Your task to perform on an android device: change notifications settings Image 0: 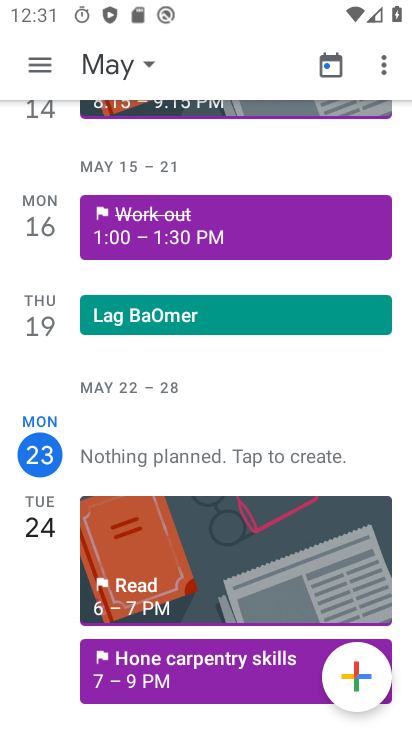
Step 0: press back button
Your task to perform on an android device: change notifications settings Image 1: 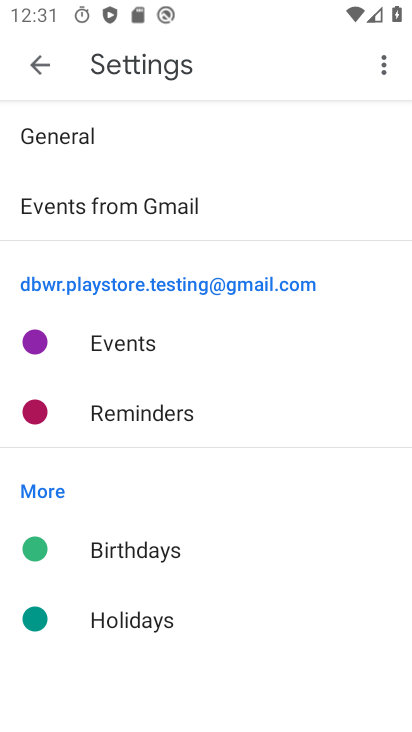
Step 1: press back button
Your task to perform on an android device: change notifications settings Image 2: 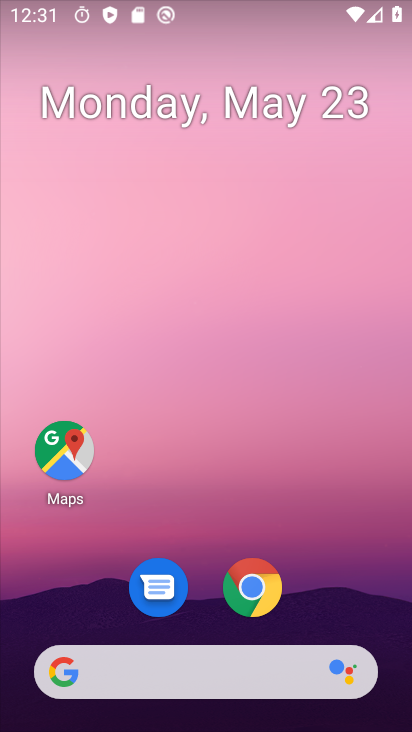
Step 2: drag from (216, 359) to (236, 229)
Your task to perform on an android device: change notifications settings Image 3: 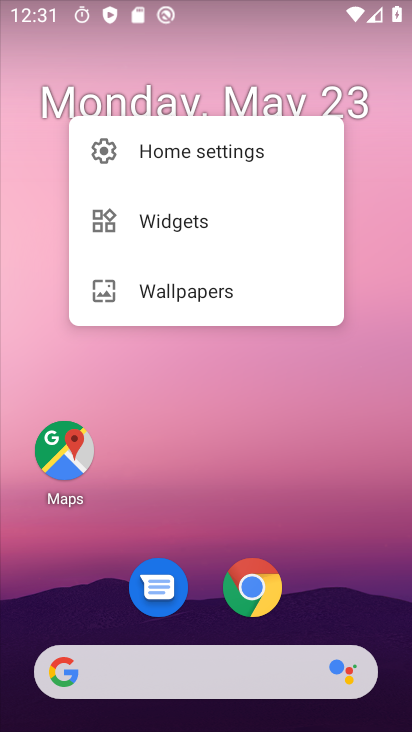
Step 3: click (259, 473)
Your task to perform on an android device: change notifications settings Image 4: 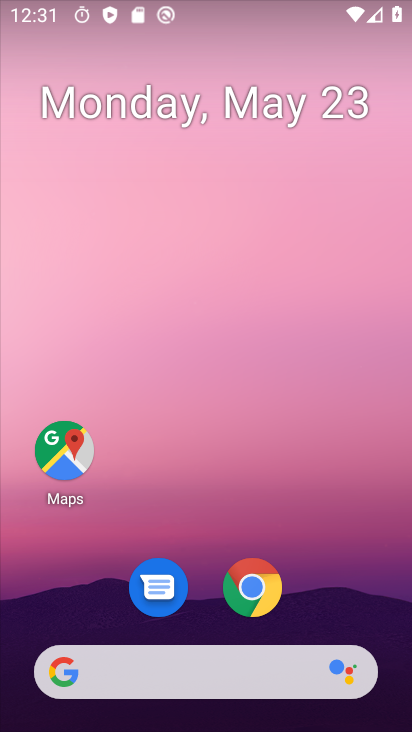
Step 4: drag from (201, 529) to (316, 3)
Your task to perform on an android device: change notifications settings Image 5: 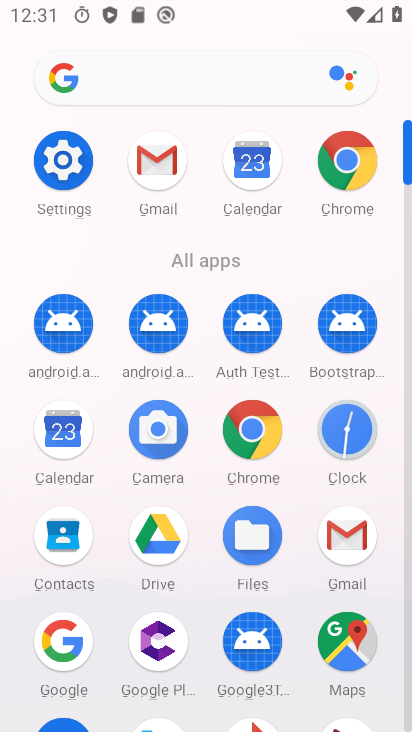
Step 5: click (58, 171)
Your task to perform on an android device: change notifications settings Image 6: 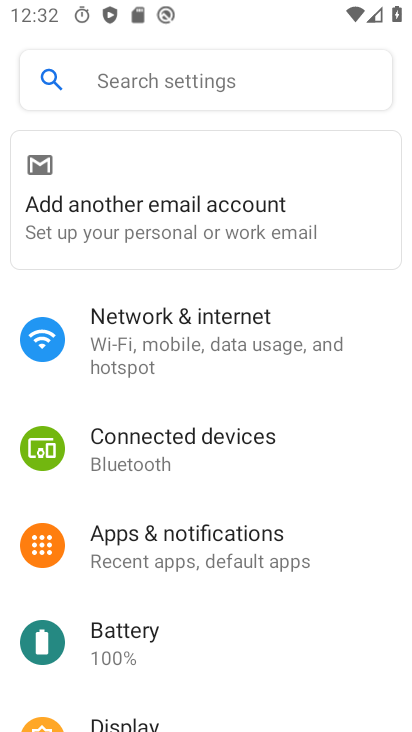
Step 6: click (248, 546)
Your task to perform on an android device: change notifications settings Image 7: 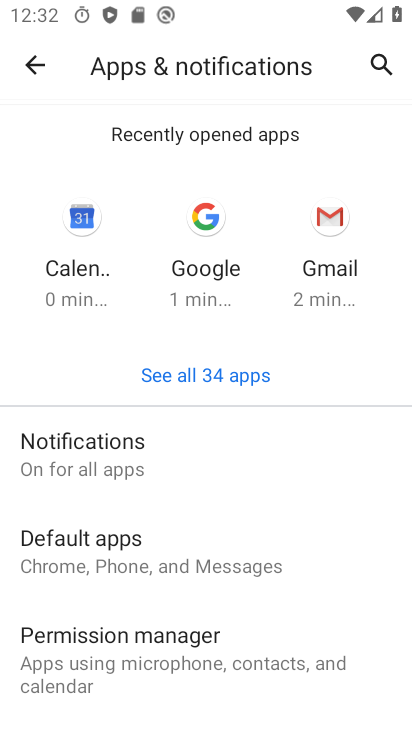
Step 7: click (133, 459)
Your task to perform on an android device: change notifications settings Image 8: 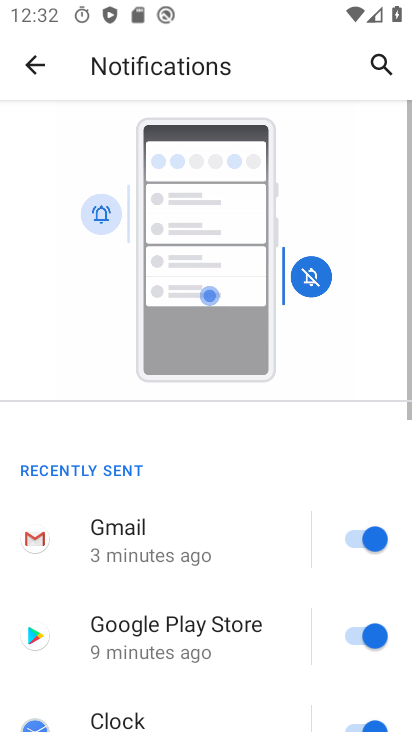
Step 8: drag from (179, 587) to (251, 40)
Your task to perform on an android device: change notifications settings Image 9: 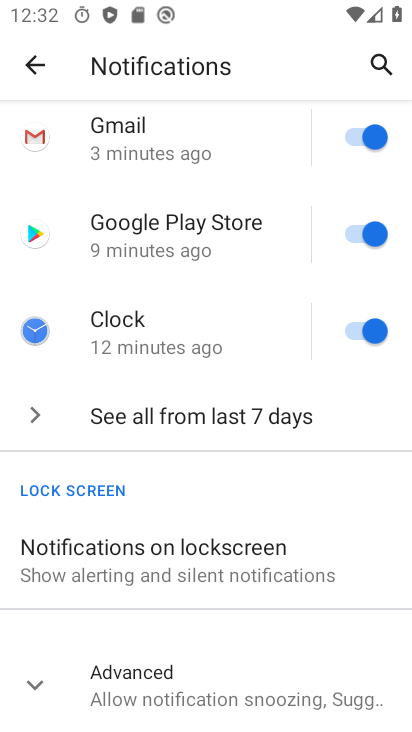
Step 9: click (203, 709)
Your task to perform on an android device: change notifications settings Image 10: 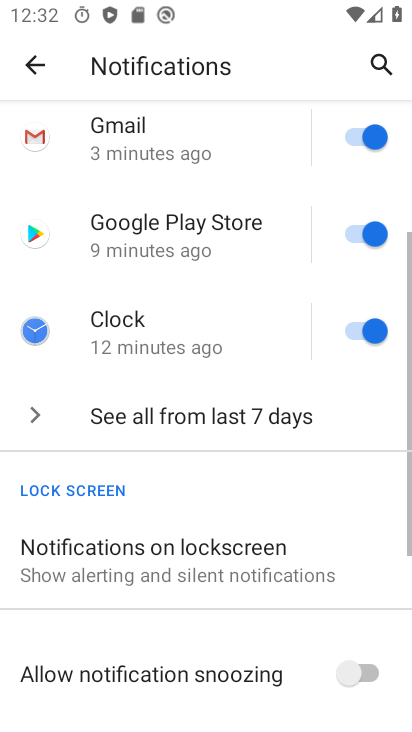
Step 10: drag from (203, 675) to (239, 250)
Your task to perform on an android device: change notifications settings Image 11: 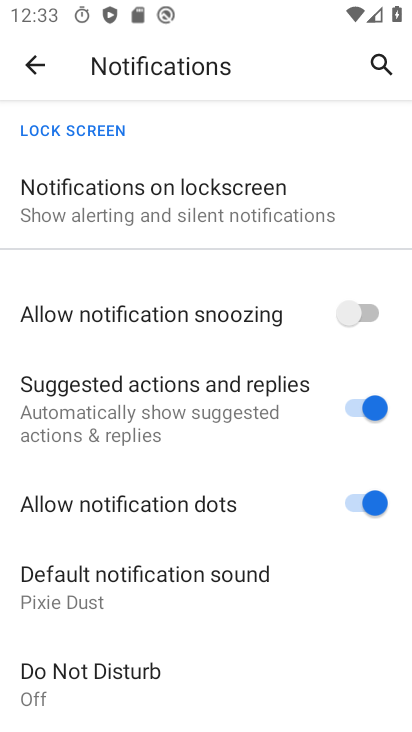
Step 11: click (348, 313)
Your task to perform on an android device: change notifications settings Image 12: 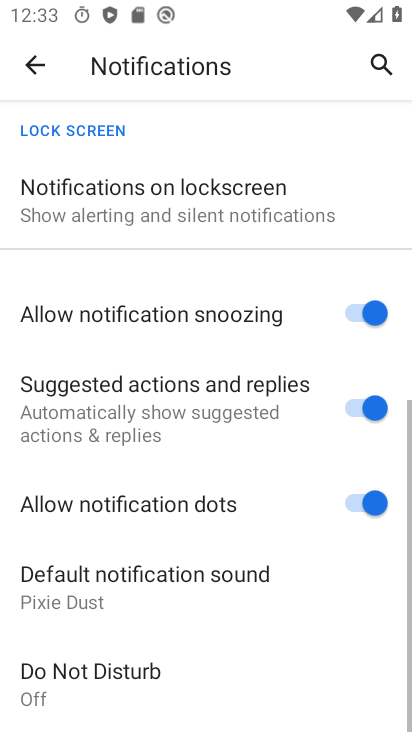
Step 12: task complete